Your task to perform on an android device: Go to CNN.com Image 0: 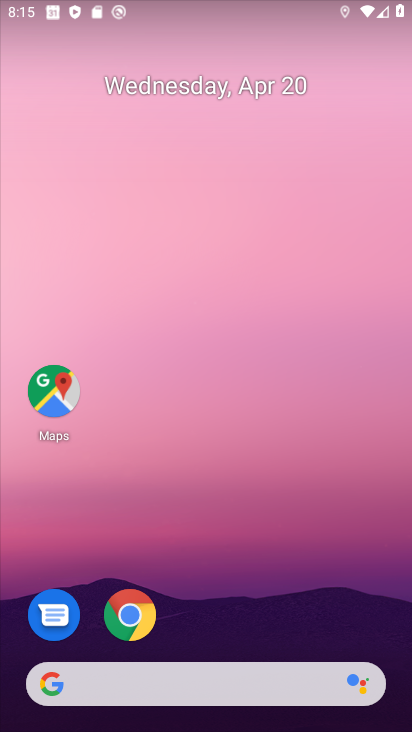
Step 0: drag from (200, 604) to (240, 79)
Your task to perform on an android device: Go to CNN.com Image 1: 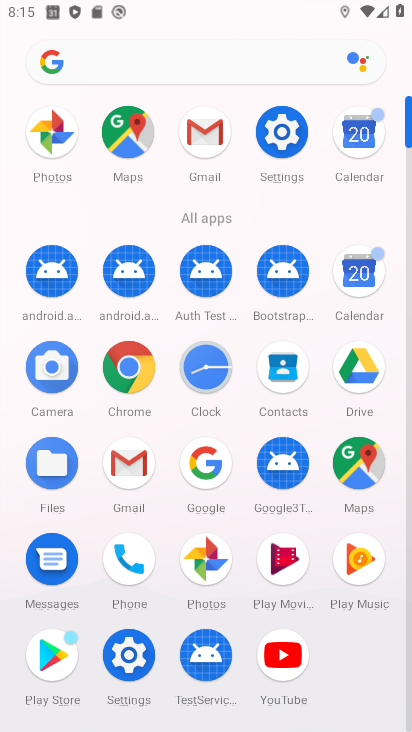
Step 1: click (207, 459)
Your task to perform on an android device: Go to CNN.com Image 2: 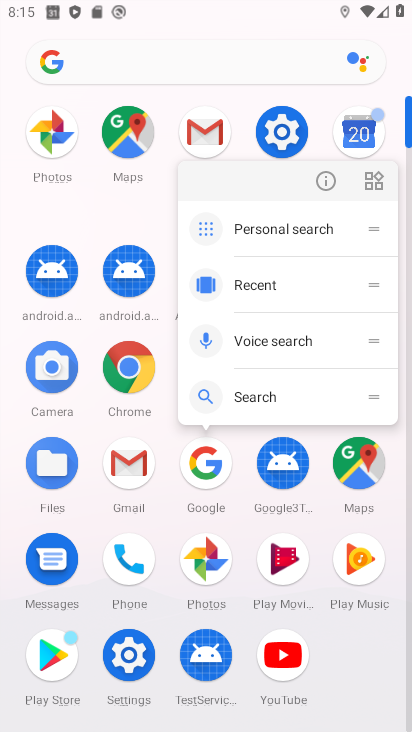
Step 2: click (160, 516)
Your task to perform on an android device: Go to CNN.com Image 3: 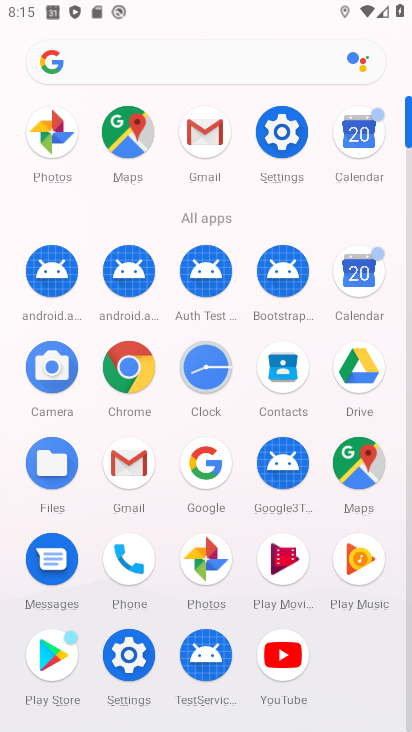
Step 3: click (201, 464)
Your task to perform on an android device: Go to CNN.com Image 4: 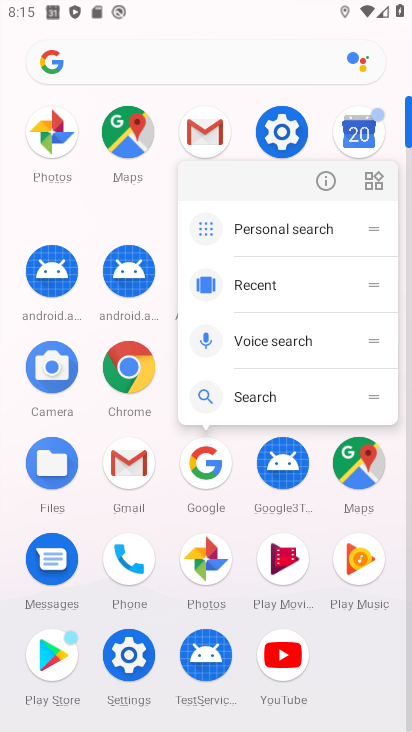
Step 4: click (201, 464)
Your task to perform on an android device: Go to CNN.com Image 5: 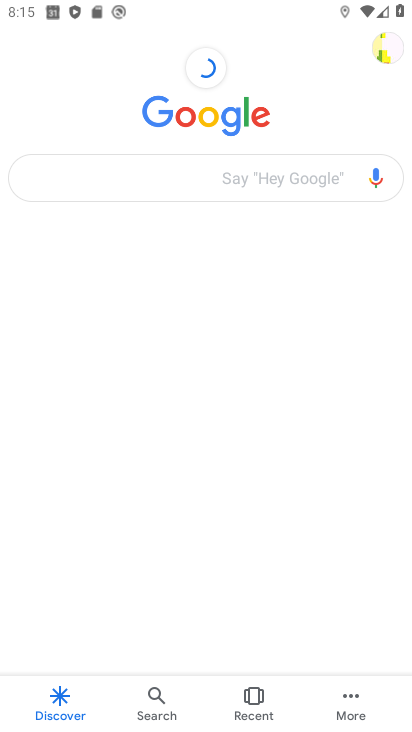
Step 5: click (180, 181)
Your task to perform on an android device: Go to CNN.com Image 6: 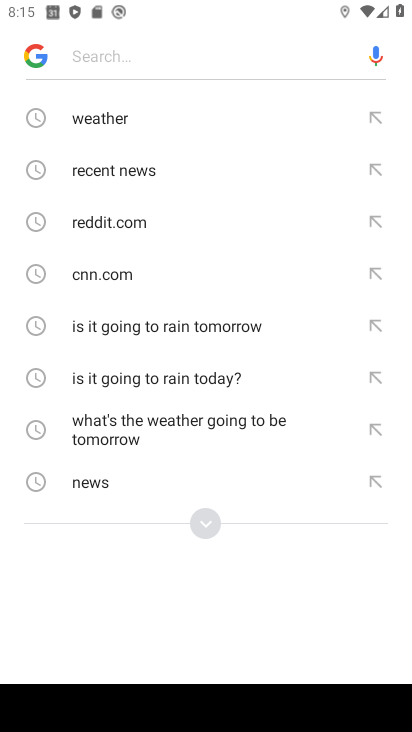
Step 6: type "cnn.com"
Your task to perform on an android device: Go to CNN.com Image 7: 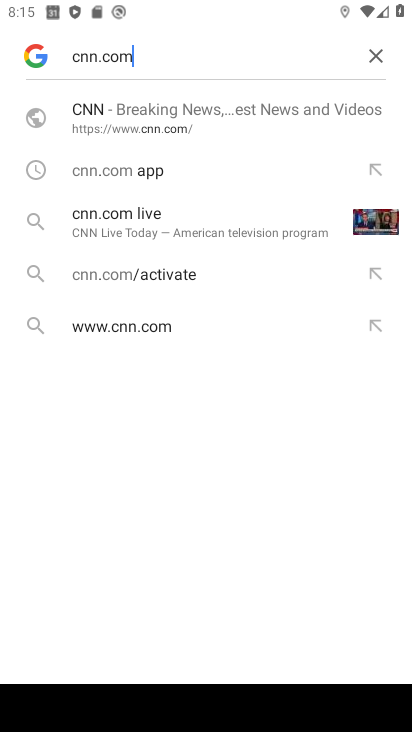
Step 7: click (128, 325)
Your task to perform on an android device: Go to CNN.com Image 8: 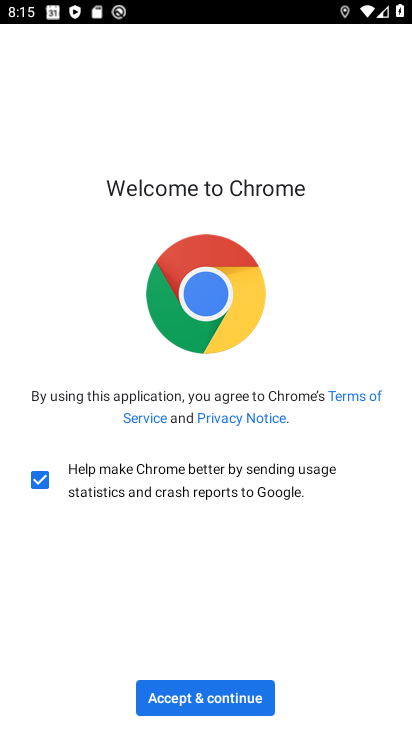
Step 8: click (189, 699)
Your task to perform on an android device: Go to CNN.com Image 9: 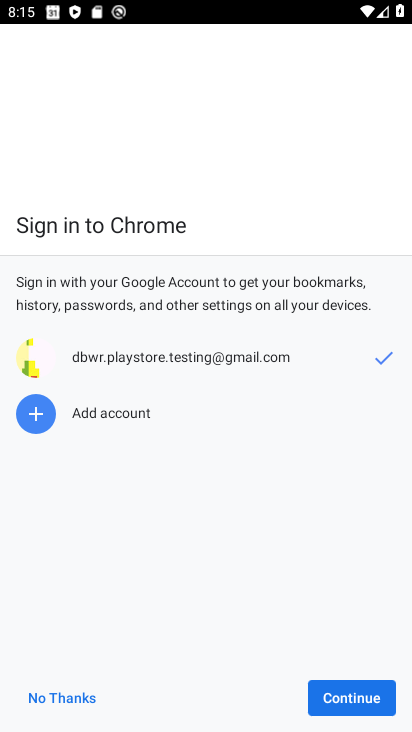
Step 9: click (344, 694)
Your task to perform on an android device: Go to CNN.com Image 10: 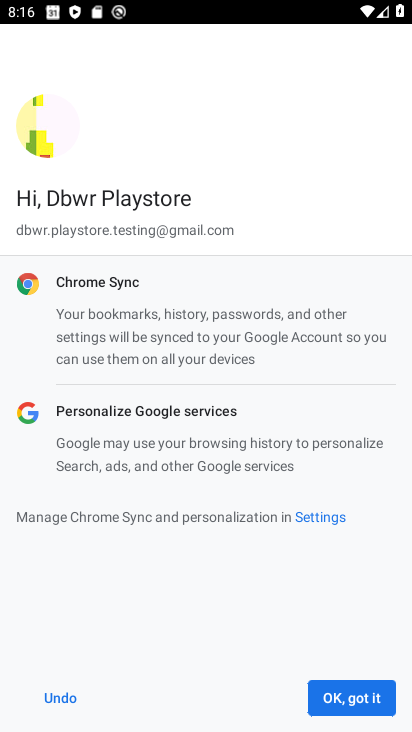
Step 10: click (344, 694)
Your task to perform on an android device: Go to CNN.com Image 11: 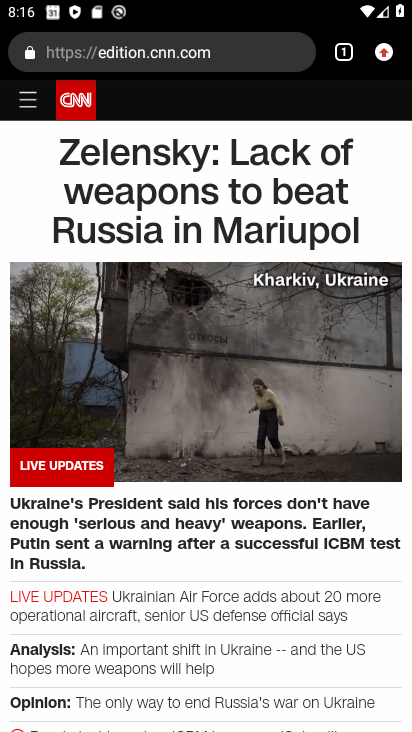
Step 11: task complete